Your task to perform on an android device: What's the weather today? Image 0: 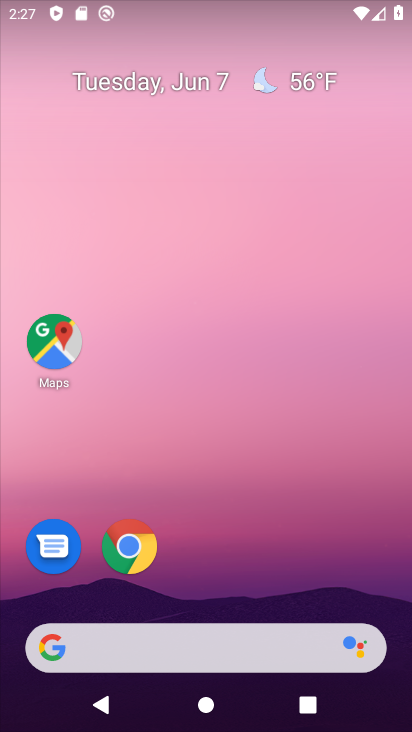
Step 0: drag from (322, 566) to (318, 32)
Your task to perform on an android device: What's the weather today? Image 1: 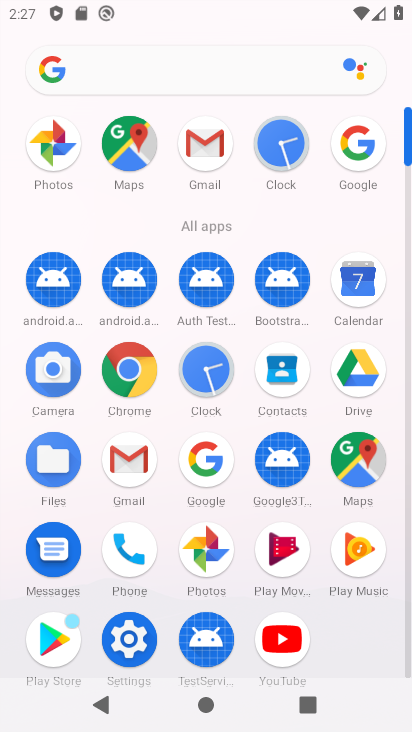
Step 1: click (208, 552)
Your task to perform on an android device: What's the weather today? Image 2: 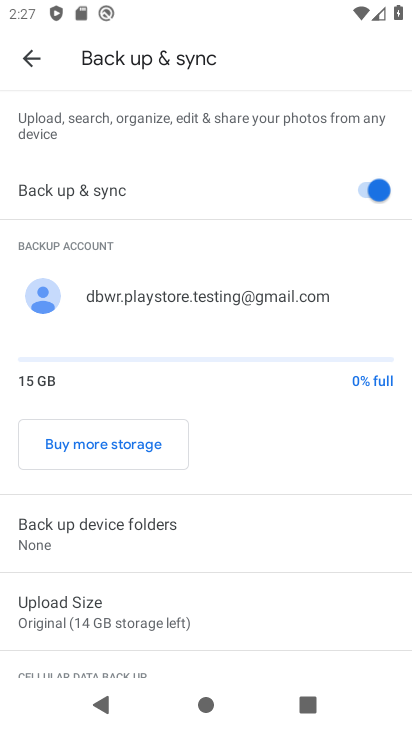
Step 2: press home button
Your task to perform on an android device: What's the weather today? Image 3: 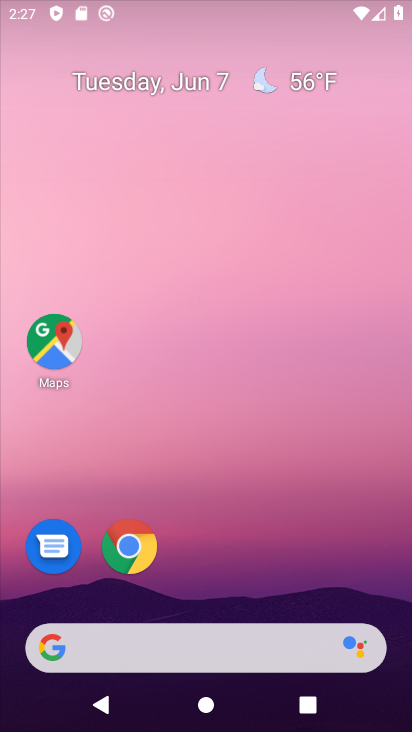
Step 3: drag from (296, 605) to (301, 0)
Your task to perform on an android device: What's the weather today? Image 4: 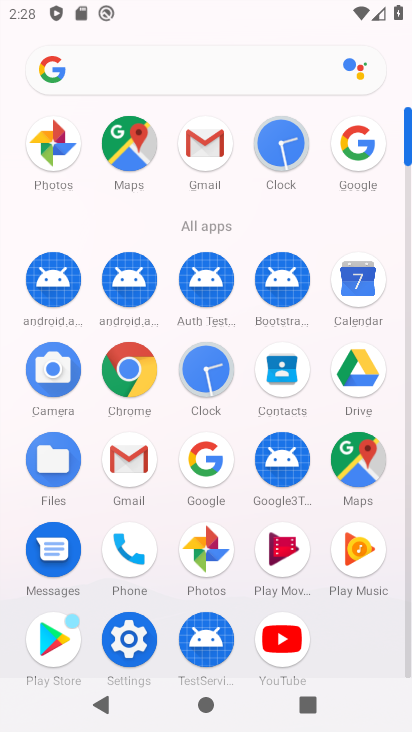
Step 4: click (158, 367)
Your task to perform on an android device: What's the weather today? Image 5: 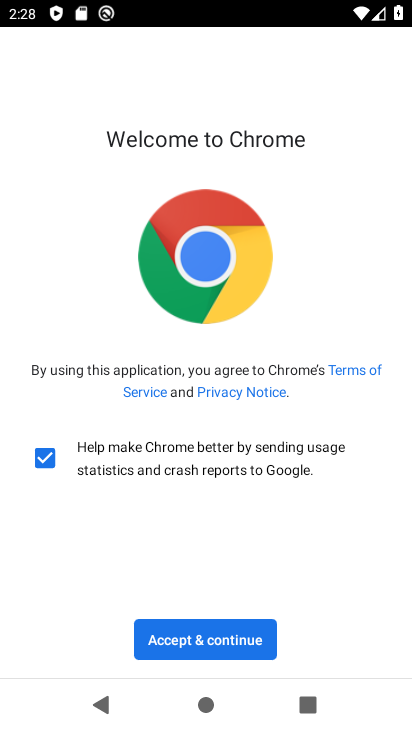
Step 5: click (221, 654)
Your task to perform on an android device: What's the weather today? Image 6: 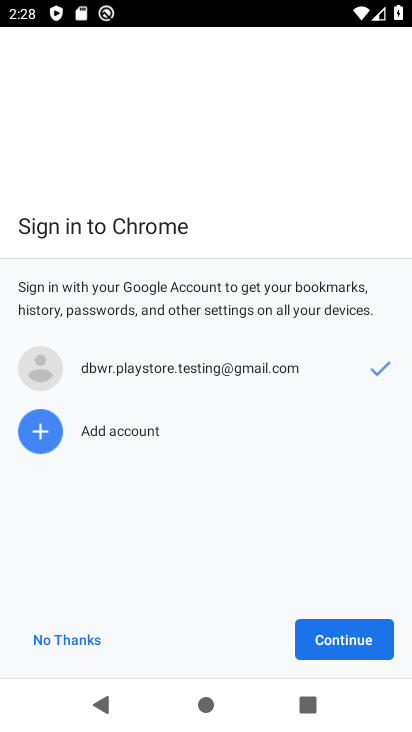
Step 6: click (344, 641)
Your task to perform on an android device: What's the weather today? Image 7: 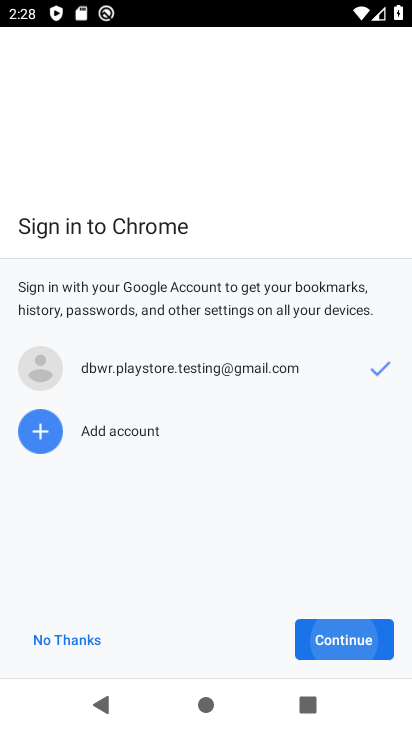
Step 7: click (344, 641)
Your task to perform on an android device: What's the weather today? Image 8: 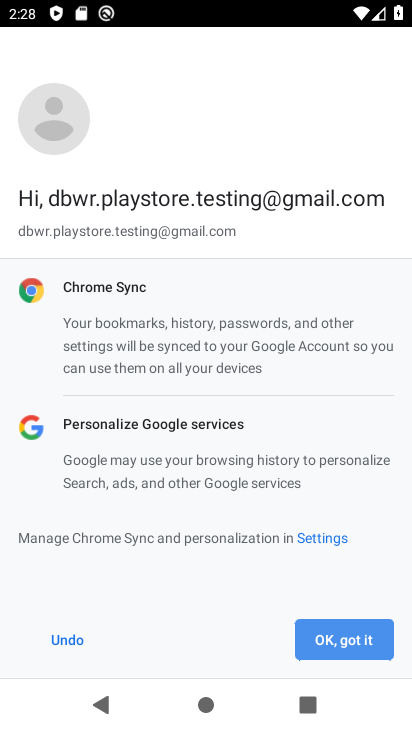
Step 8: click (344, 641)
Your task to perform on an android device: What's the weather today? Image 9: 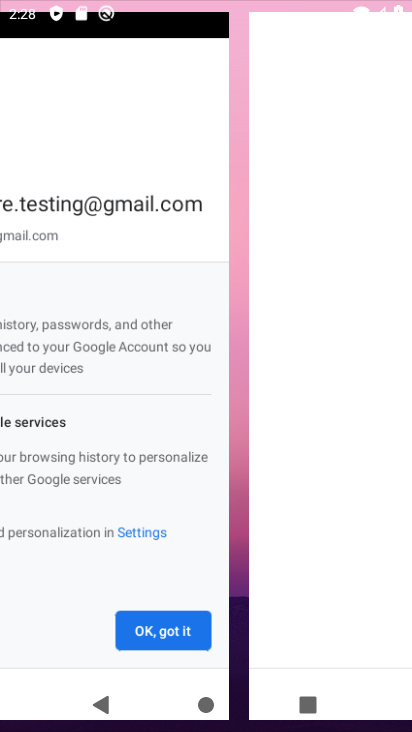
Step 9: click (344, 641)
Your task to perform on an android device: What's the weather today? Image 10: 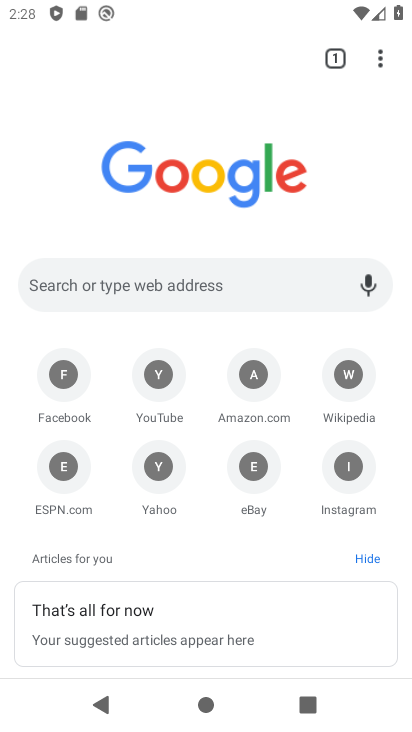
Step 10: click (201, 279)
Your task to perform on an android device: What's the weather today? Image 11: 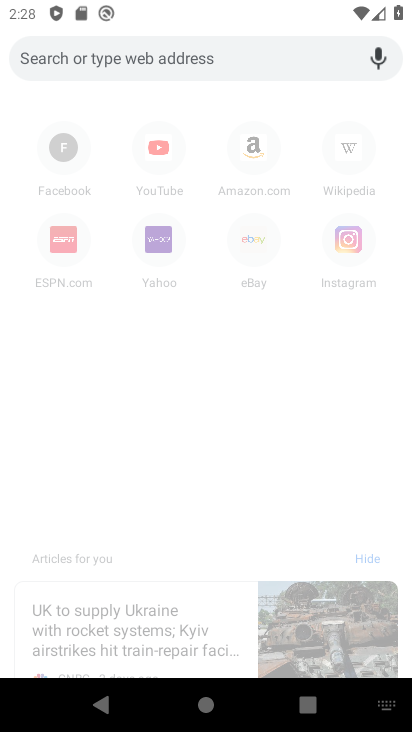
Step 11: type "What's the weather today?"
Your task to perform on an android device: What's the weather today? Image 12: 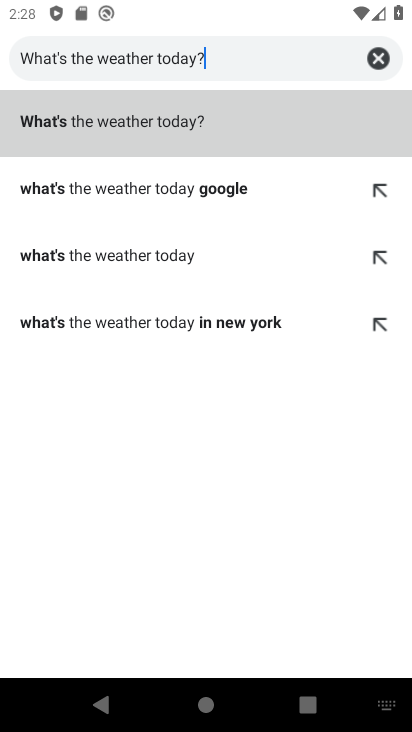
Step 12: type ""
Your task to perform on an android device: What's the weather today? Image 13: 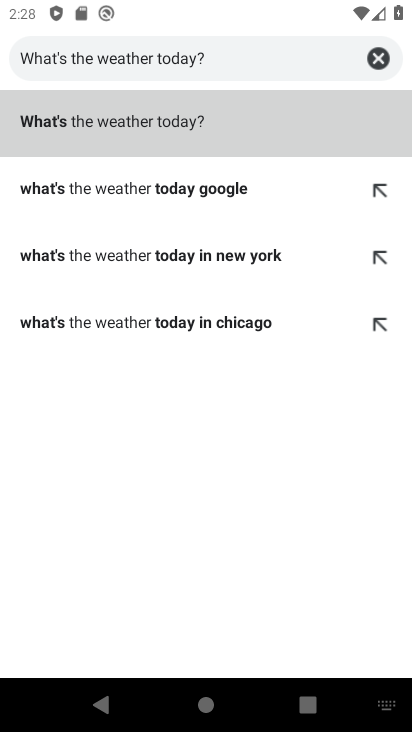
Step 13: click (249, 110)
Your task to perform on an android device: What's the weather today? Image 14: 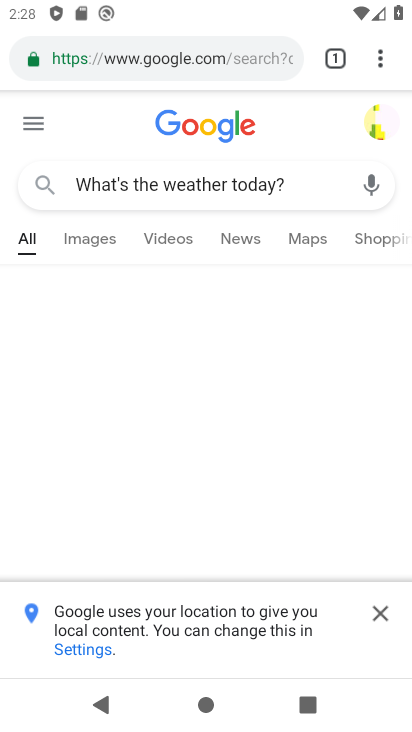
Step 14: task complete